Your task to perform on an android device: Check out the best rated 4k TV on Best Buy. Image 0: 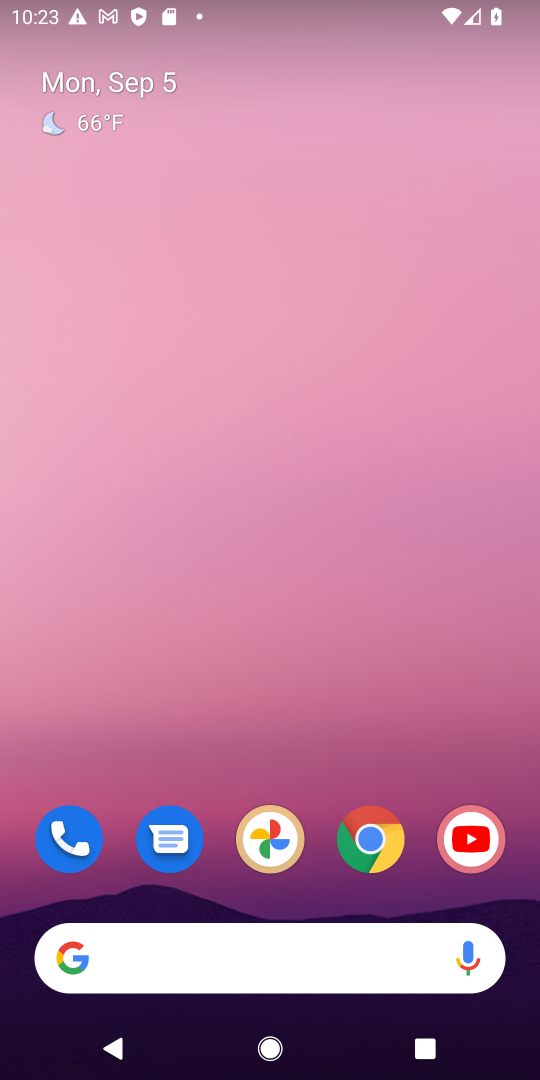
Step 0: click (240, 194)
Your task to perform on an android device: Check out the best rated 4k TV on Best Buy. Image 1: 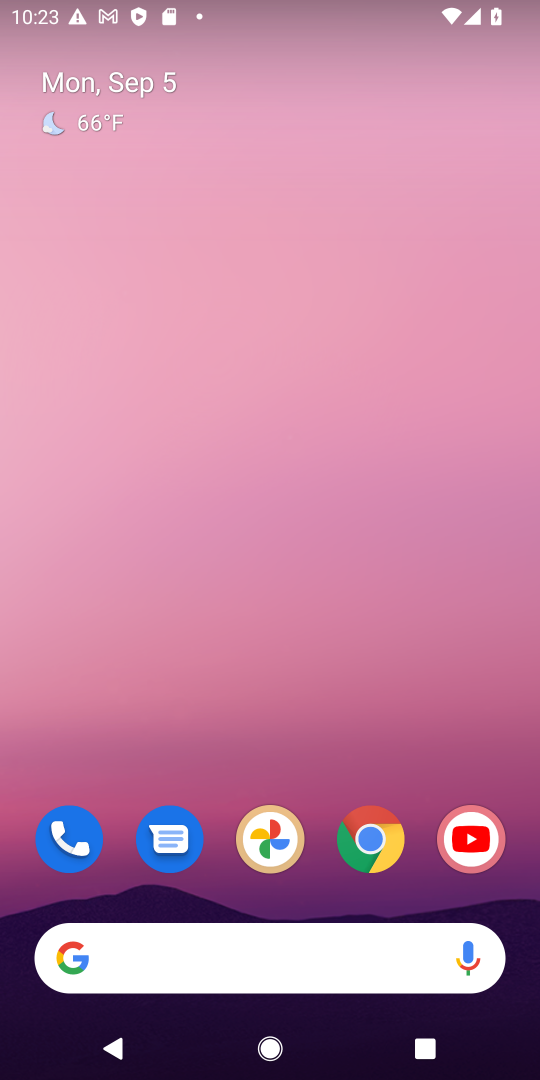
Step 1: drag from (295, 926) to (318, 31)
Your task to perform on an android device: Check out the best rated 4k TV on Best Buy. Image 2: 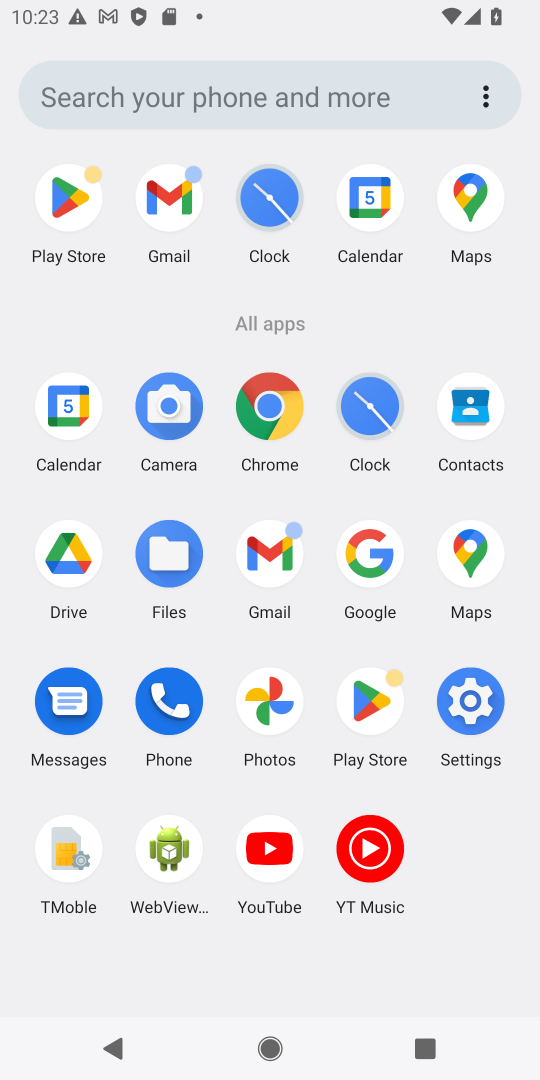
Step 2: click (363, 554)
Your task to perform on an android device: Check out the best rated 4k TV on Best Buy. Image 3: 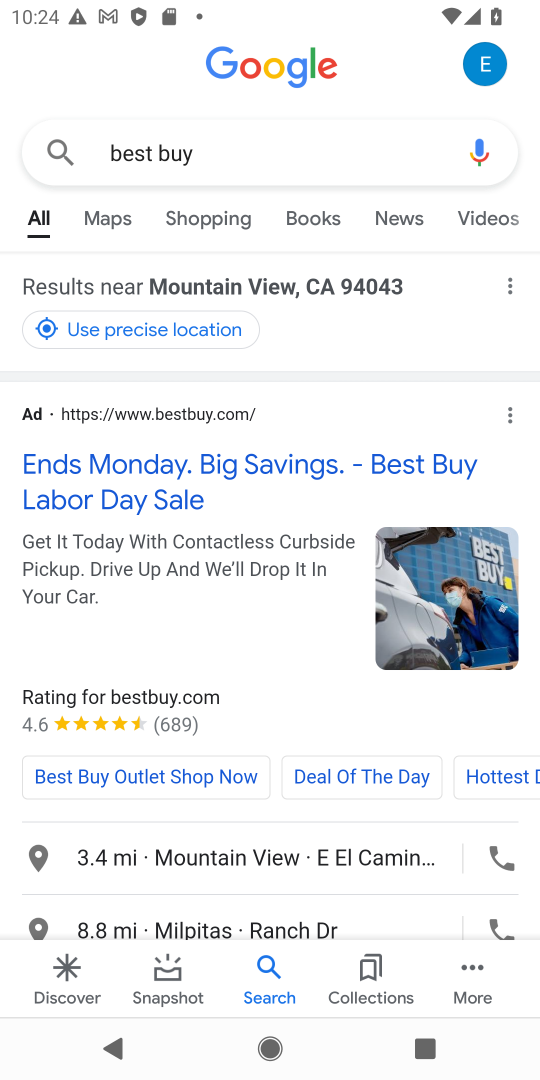
Step 3: click (215, 137)
Your task to perform on an android device: Check out the best rated 4k TV on Best Buy. Image 4: 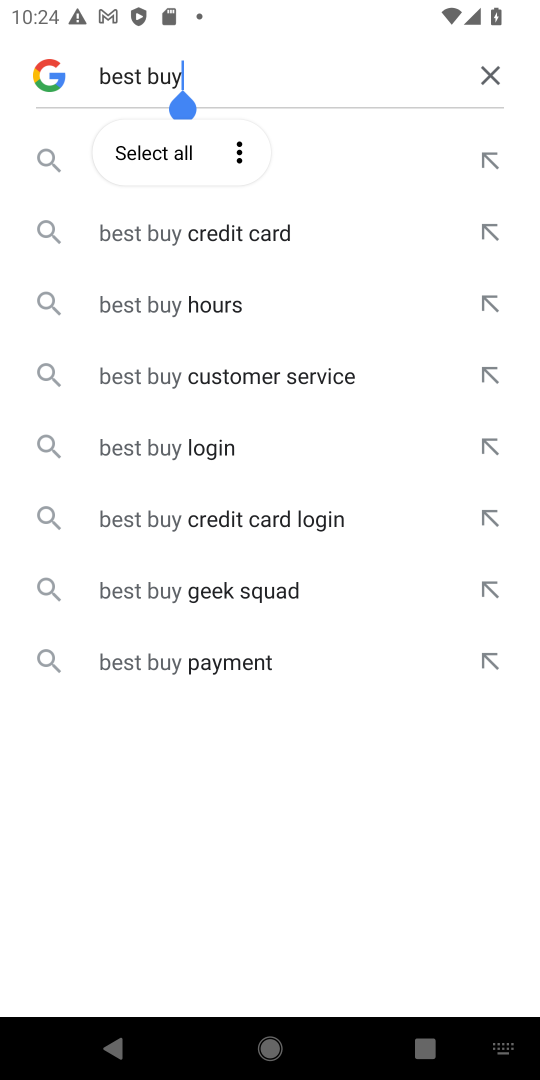
Step 4: click (488, 82)
Your task to perform on an android device: Check out the best rated 4k TV on Best Buy. Image 5: 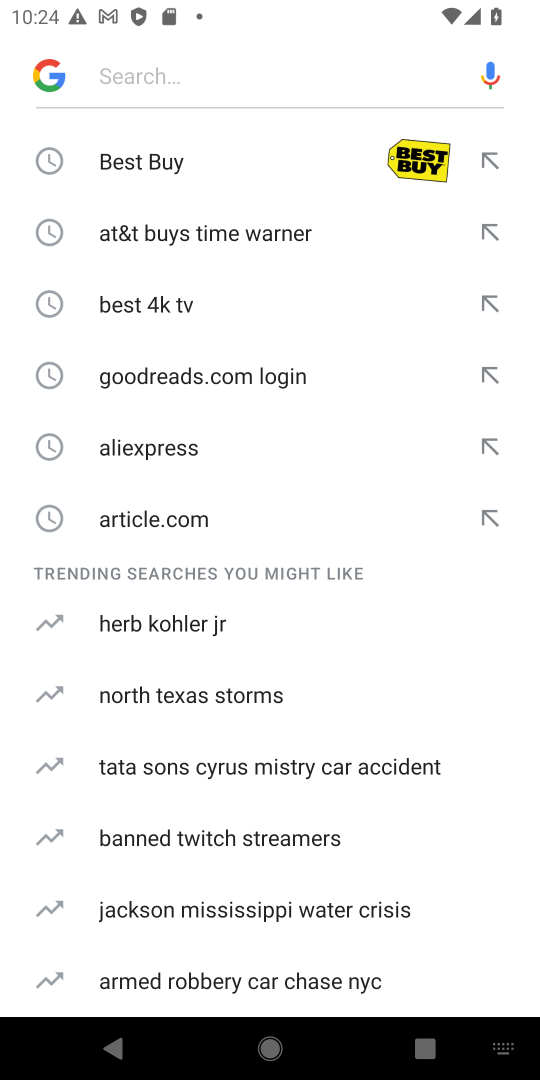
Step 5: click (150, 160)
Your task to perform on an android device: Check out the best rated 4k TV on Best Buy. Image 6: 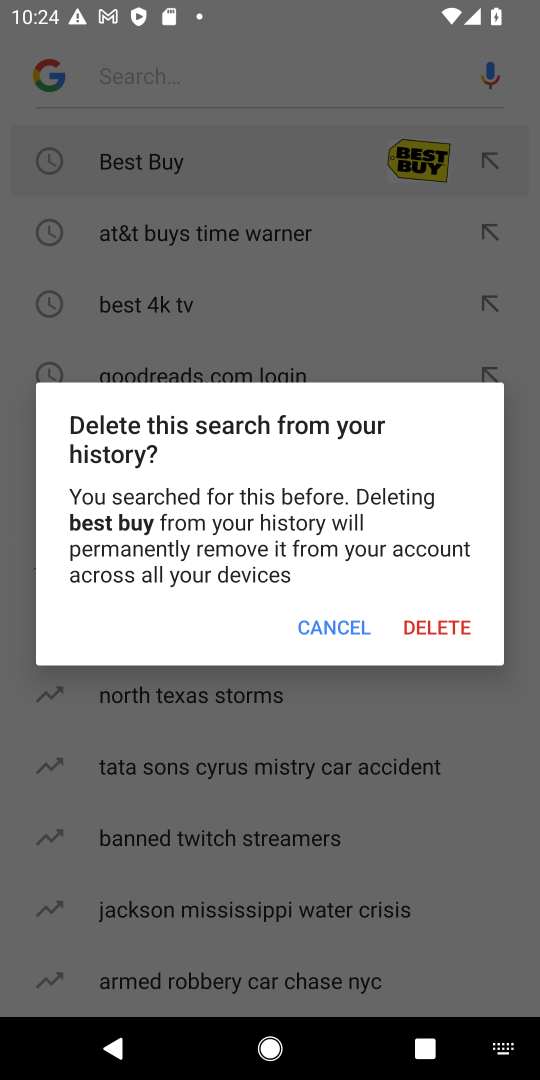
Step 6: click (318, 638)
Your task to perform on an android device: Check out the best rated 4k TV on Best Buy. Image 7: 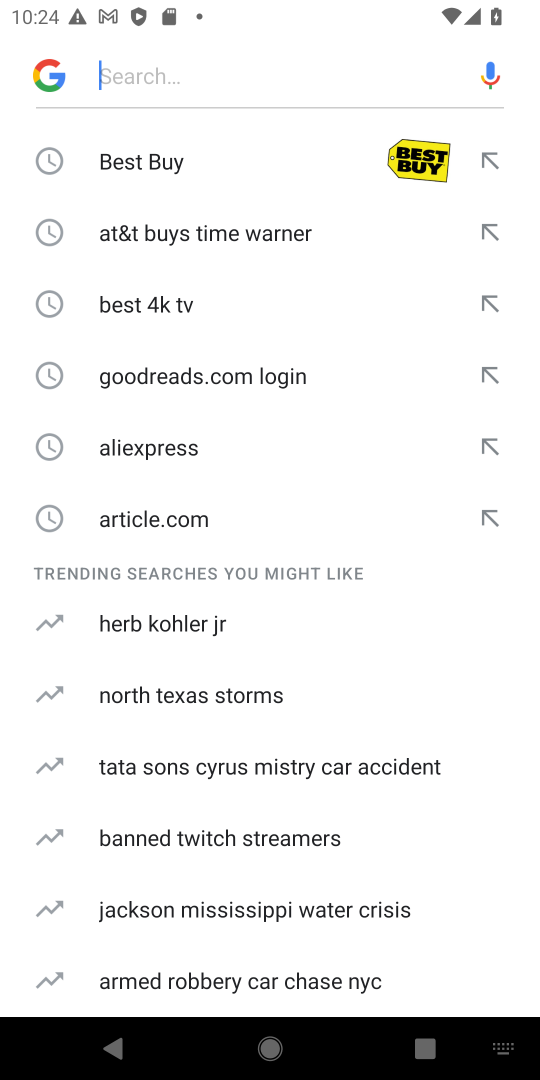
Step 7: click (425, 165)
Your task to perform on an android device: Check out the best rated 4k TV on Best Buy. Image 8: 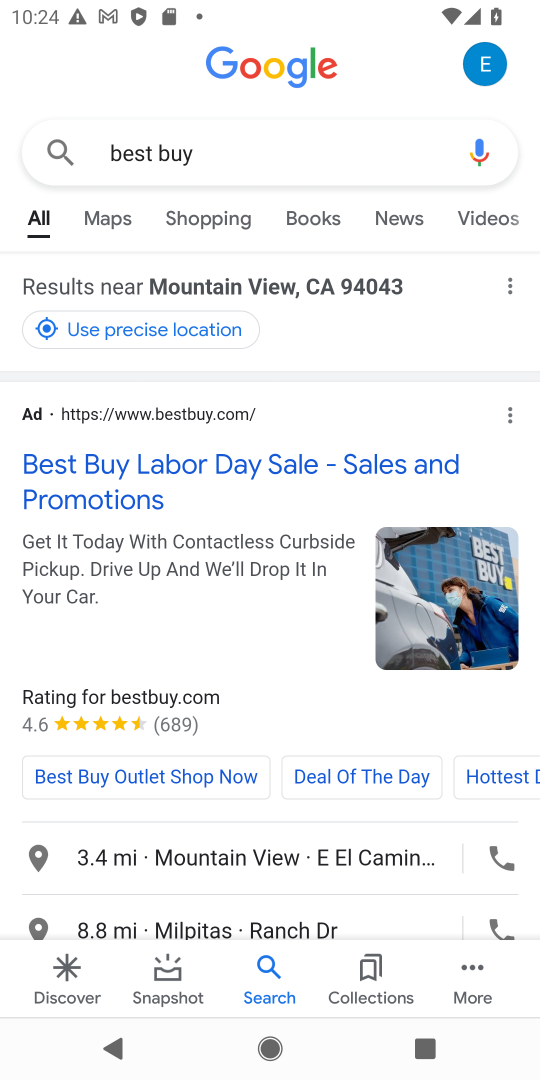
Step 8: drag from (244, 458) to (248, 218)
Your task to perform on an android device: Check out the best rated 4k TV on Best Buy. Image 9: 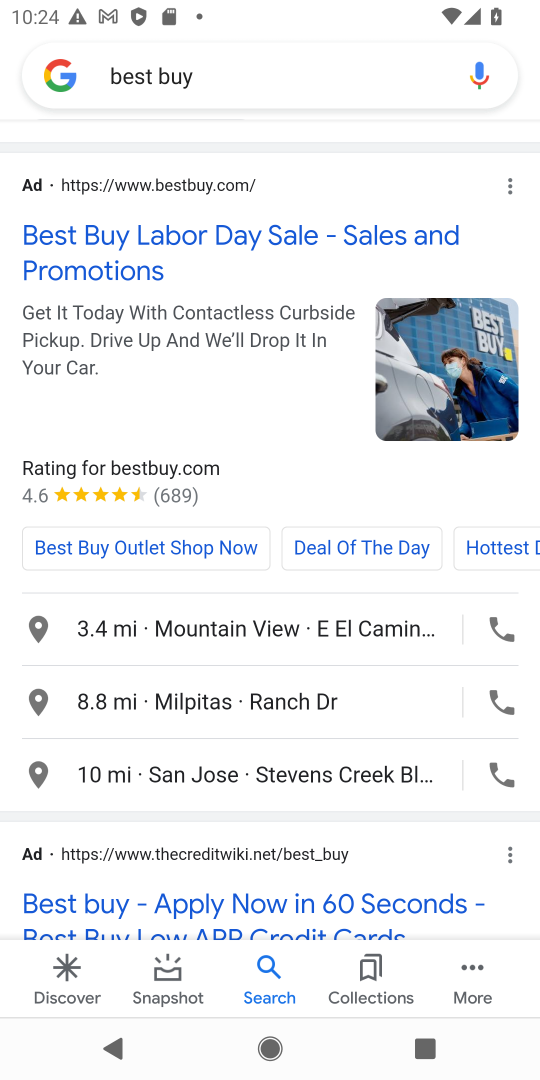
Step 9: drag from (298, 812) to (335, 456)
Your task to perform on an android device: Check out the best rated 4k TV on Best Buy. Image 10: 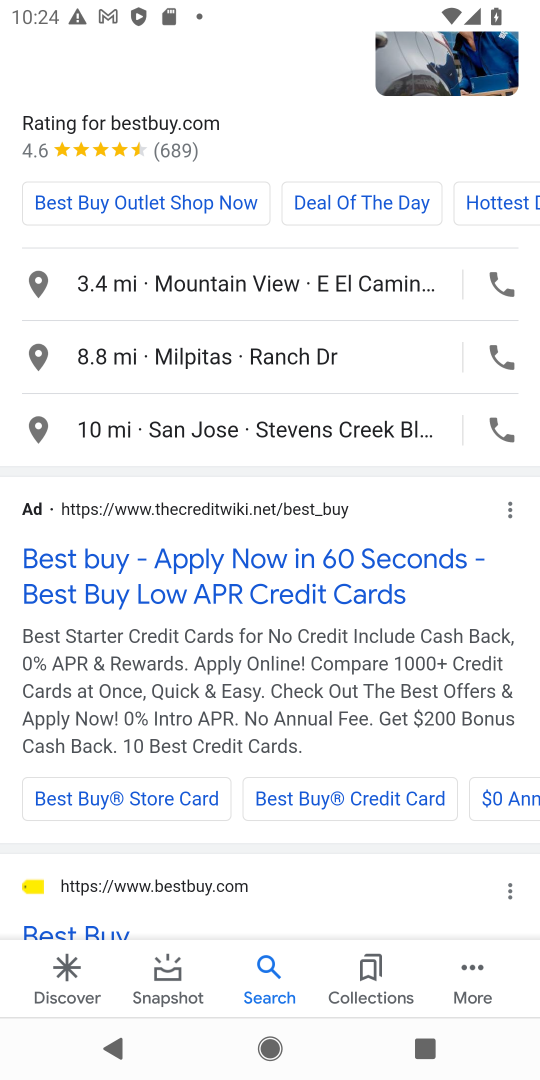
Step 10: click (211, 566)
Your task to perform on an android device: Check out the best rated 4k TV on Best Buy. Image 11: 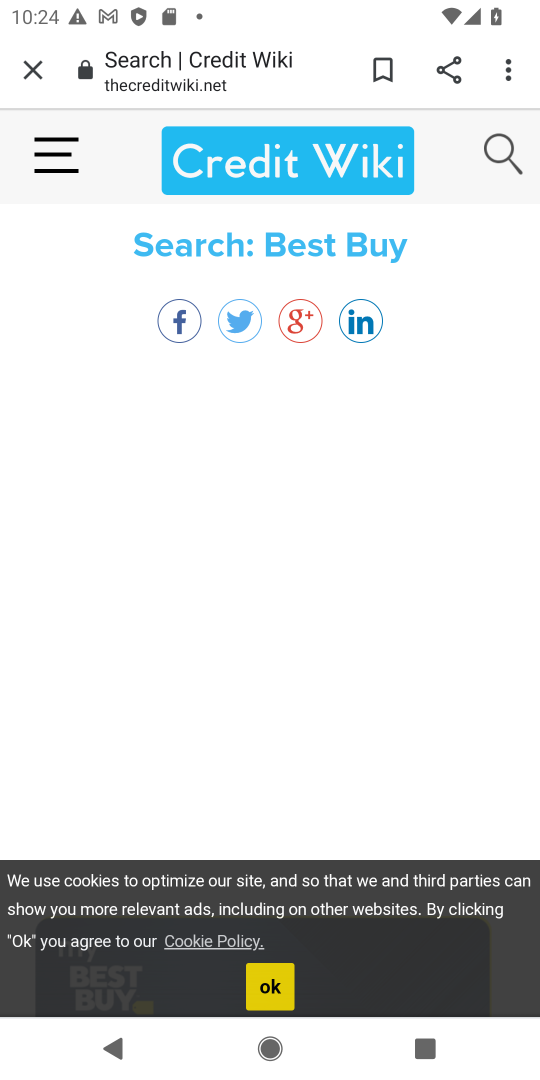
Step 11: task complete